Your task to perform on an android device: turn on the 24-hour format for clock Image 0: 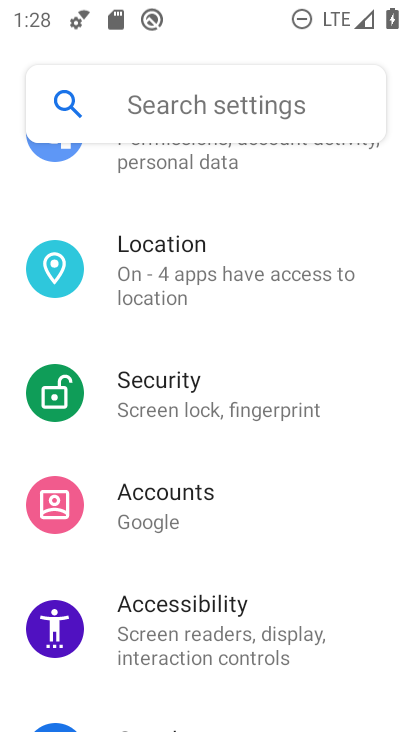
Step 0: press home button
Your task to perform on an android device: turn on the 24-hour format for clock Image 1: 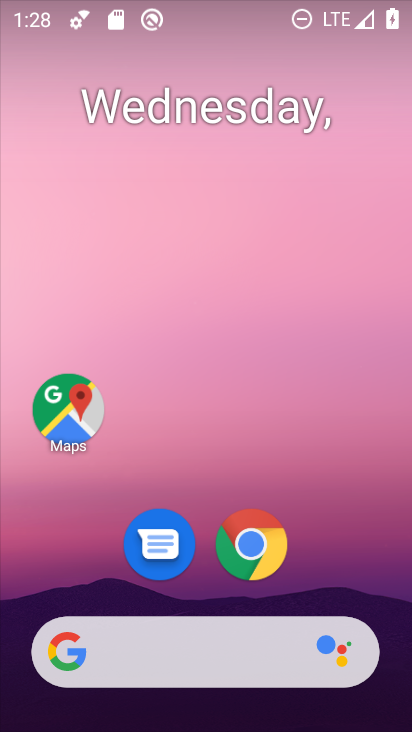
Step 1: drag from (356, 554) to (335, 69)
Your task to perform on an android device: turn on the 24-hour format for clock Image 2: 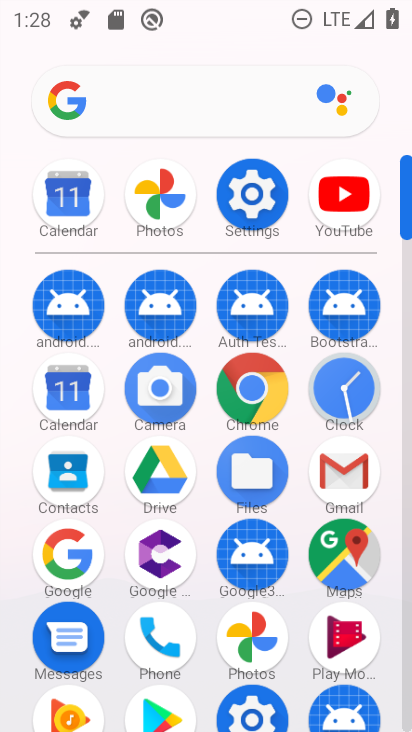
Step 2: click (351, 364)
Your task to perform on an android device: turn on the 24-hour format for clock Image 3: 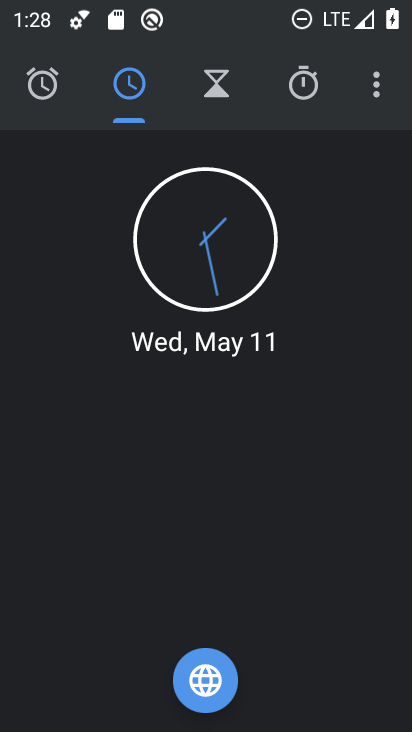
Step 3: click (365, 88)
Your task to perform on an android device: turn on the 24-hour format for clock Image 4: 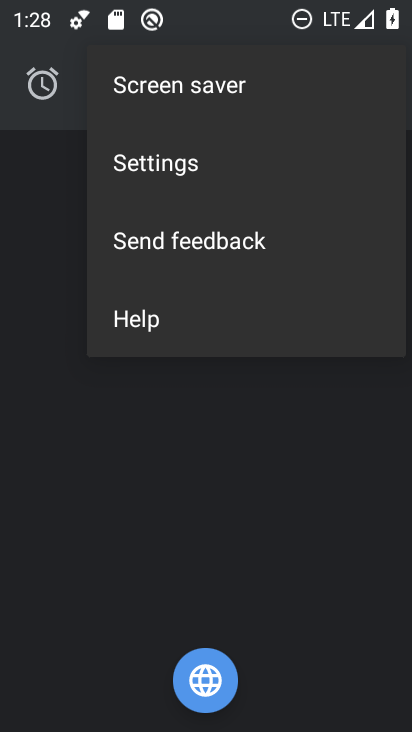
Step 4: click (246, 165)
Your task to perform on an android device: turn on the 24-hour format for clock Image 5: 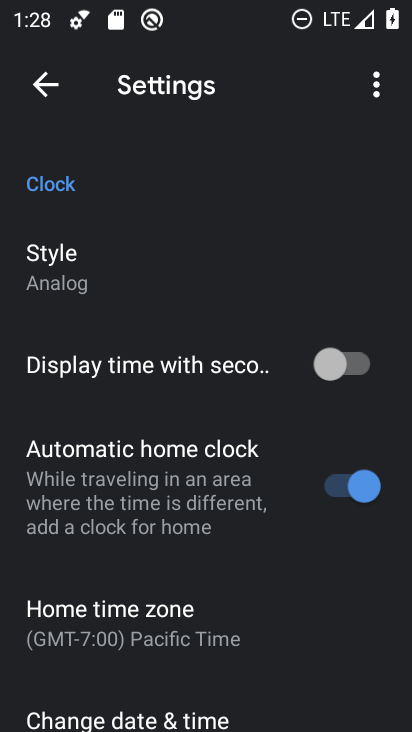
Step 5: drag from (210, 660) to (234, 319)
Your task to perform on an android device: turn on the 24-hour format for clock Image 6: 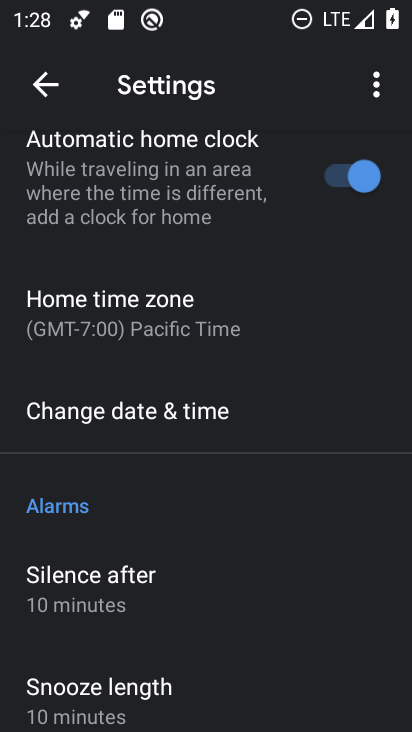
Step 6: drag from (162, 492) to (168, 405)
Your task to perform on an android device: turn on the 24-hour format for clock Image 7: 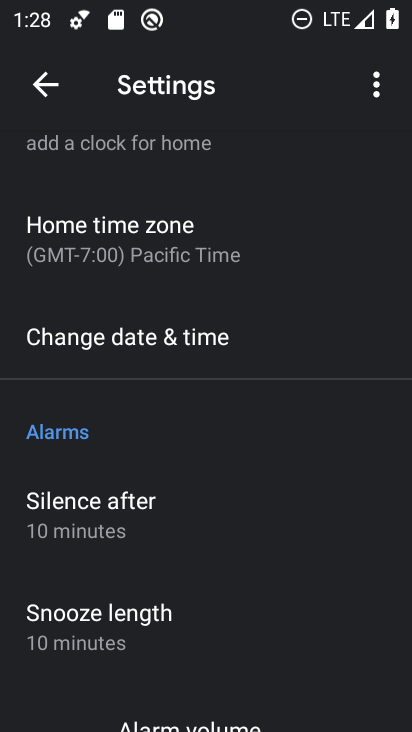
Step 7: click (194, 337)
Your task to perform on an android device: turn on the 24-hour format for clock Image 8: 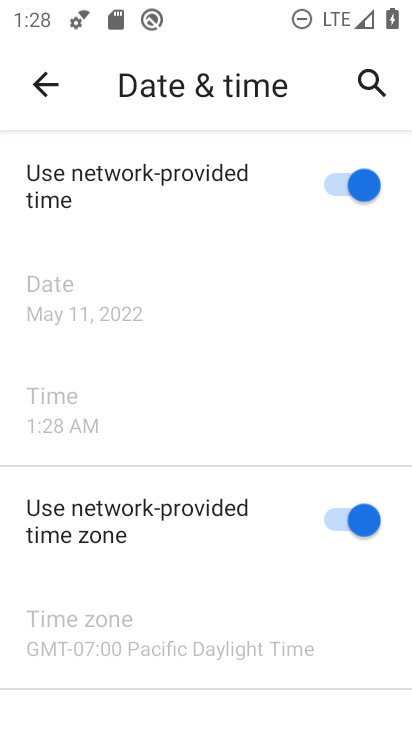
Step 8: drag from (281, 628) to (283, 170)
Your task to perform on an android device: turn on the 24-hour format for clock Image 9: 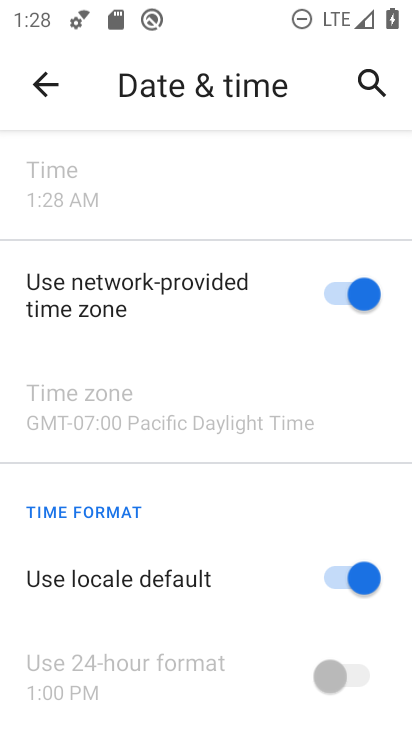
Step 9: drag from (201, 622) to (245, 150)
Your task to perform on an android device: turn on the 24-hour format for clock Image 10: 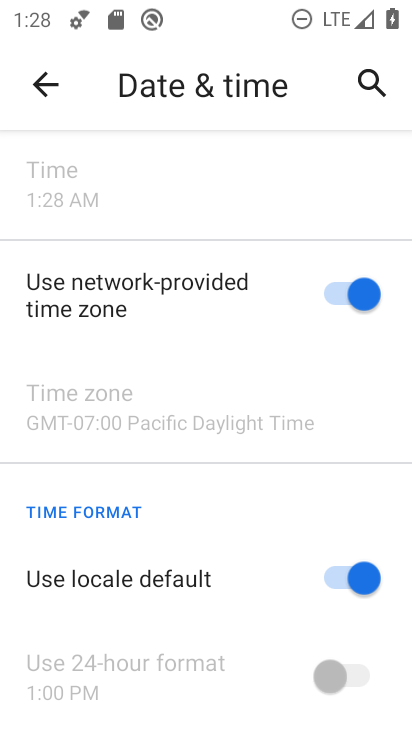
Step 10: click (356, 567)
Your task to perform on an android device: turn on the 24-hour format for clock Image 11: 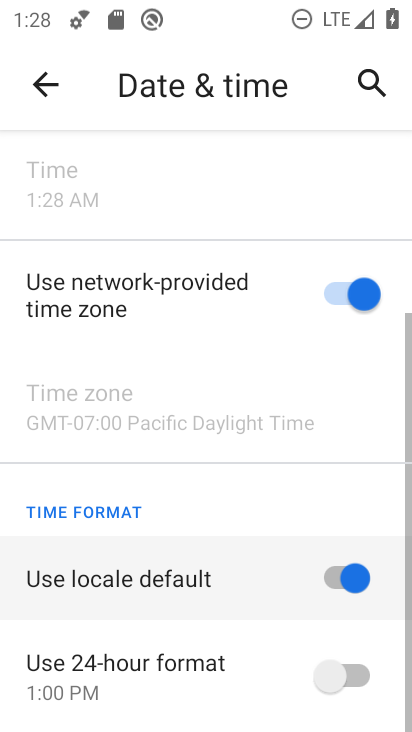
Step 11: click (323, 666)
Your task to perform on an android device: turn on the 24-hour format for clock Image 12: 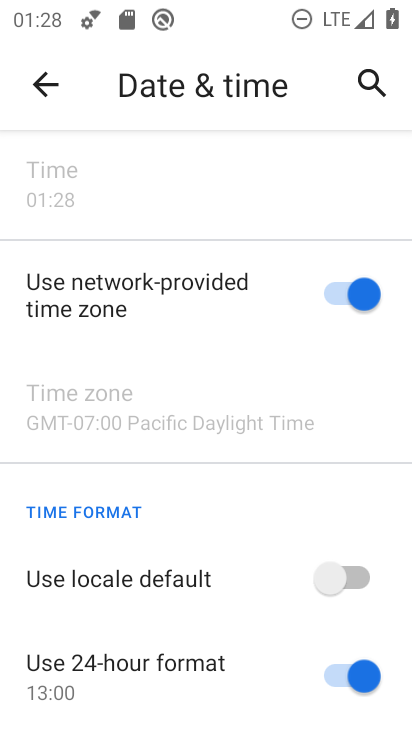
Step 12: task complete